Your task to perform on an android device: toggle sleep mode Image 0: 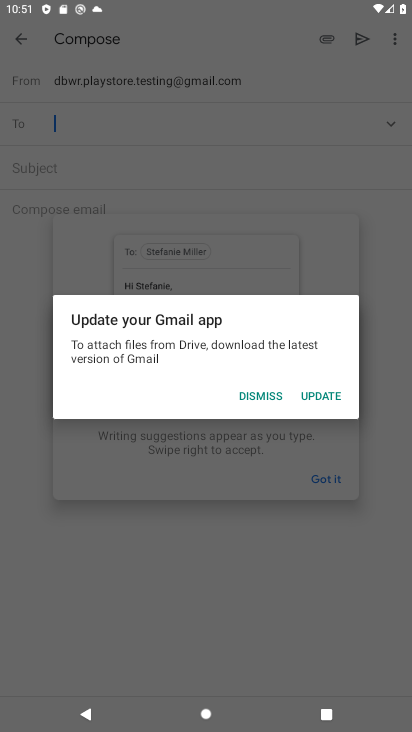
Step 0: press home button
Your task to perform on an android device: toggle sleep mode Image 1: 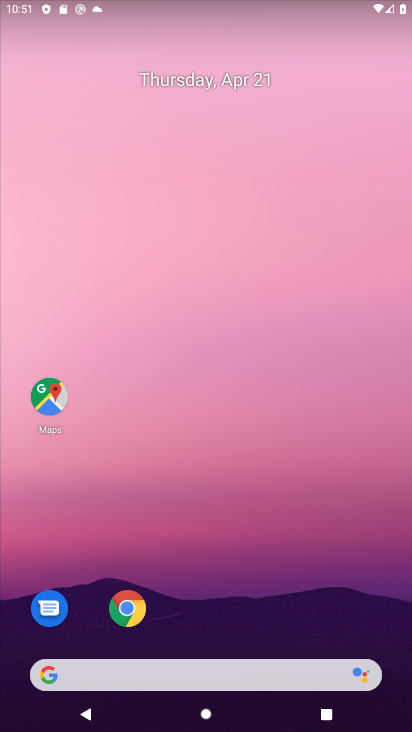
Step 1: drag from (239, 549) to (256, 49)
Your task to perform on an android device: toggle sleep mode Image 2: 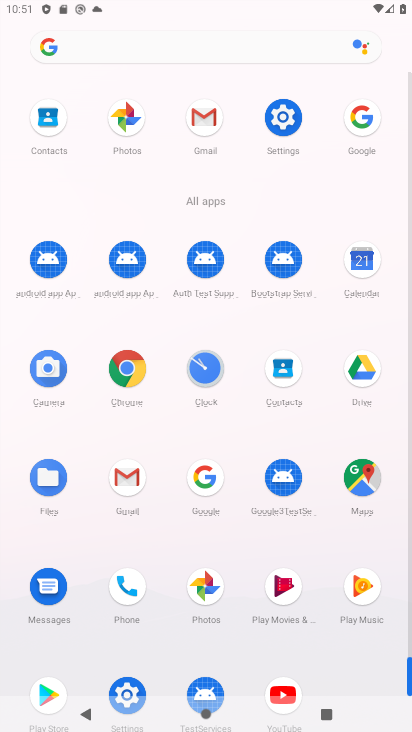
Step 2: click (286, 116)
Your task to perform on an android device: toggle sleep mode Image 3: 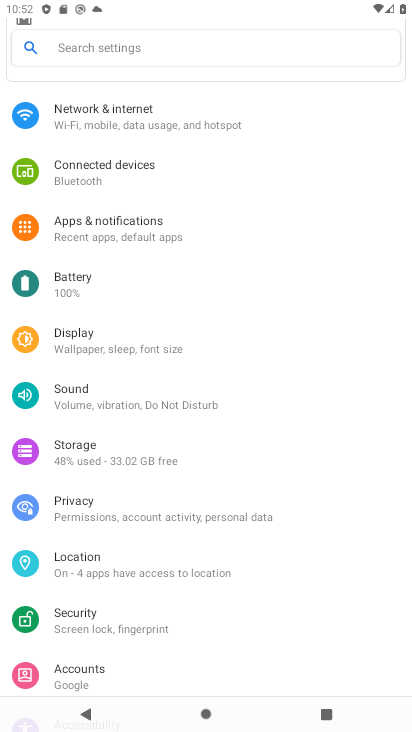
Step 3: click (175, 224)
Your task to perform on an android device: toggle sleep mode Image 4: 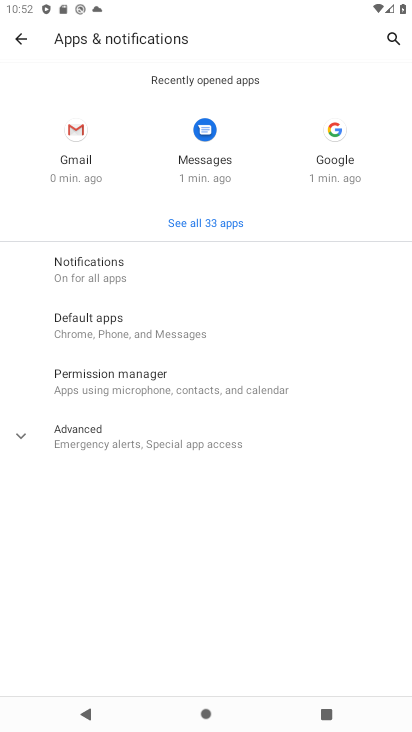
Step 4: click (203, 444)
Your task to perform on an android device: toggle sleep mode Image 5: 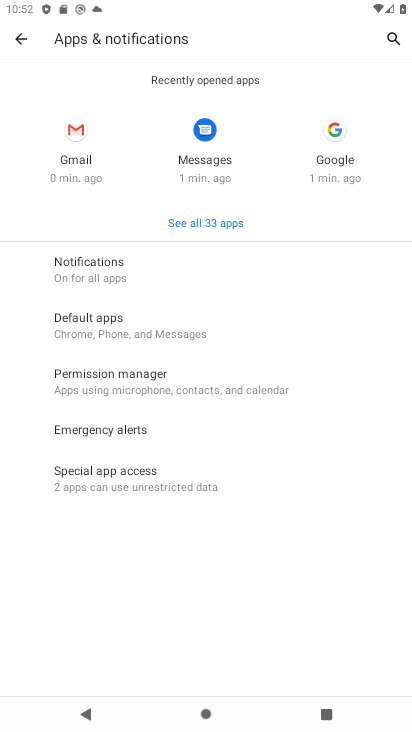
Step 5: press back button
Your task to perform on an android device: toggle sleep mode Image 6: 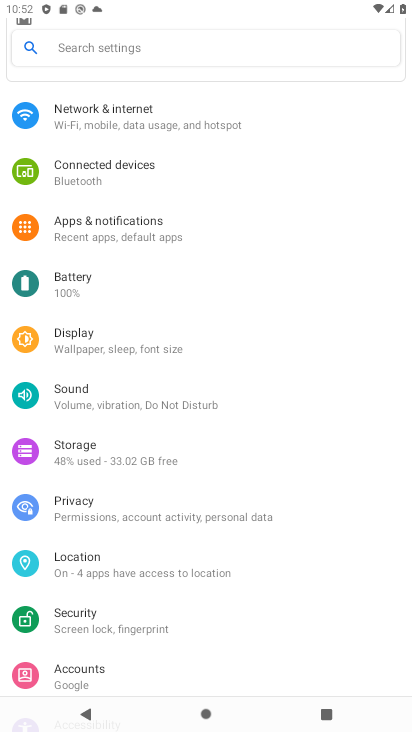
Step 6: click (170, 348)
Your task to perform on an android device: toggle sleep mode Image 7: 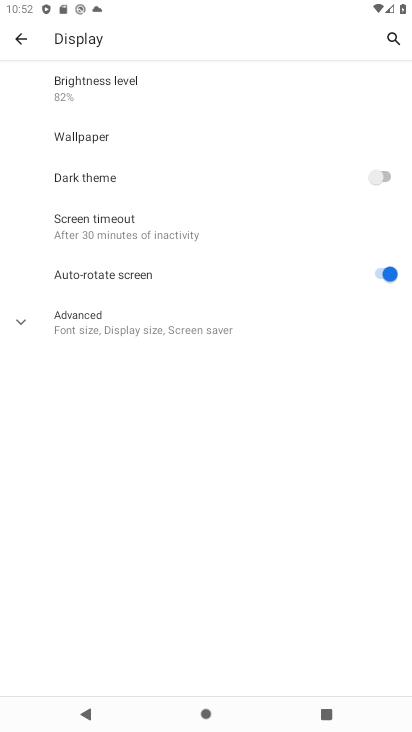
Step 7: click (183, 333)
Your task to perform on an android device: toggle sleep mode Image 8: 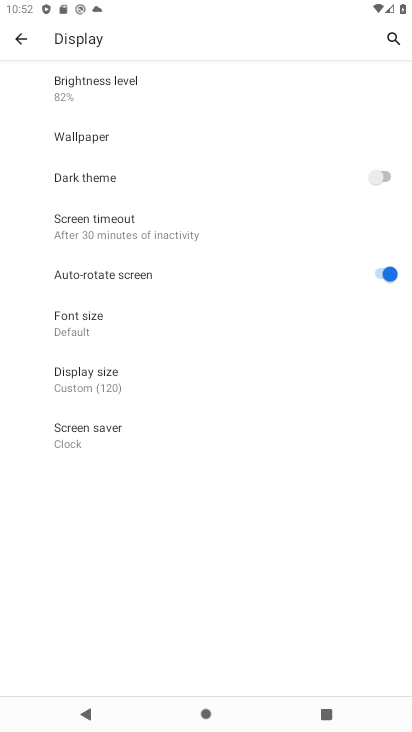
Step 8: task complete